Your task to perform on an android device: clear all cookies in the chrome app Image 0: 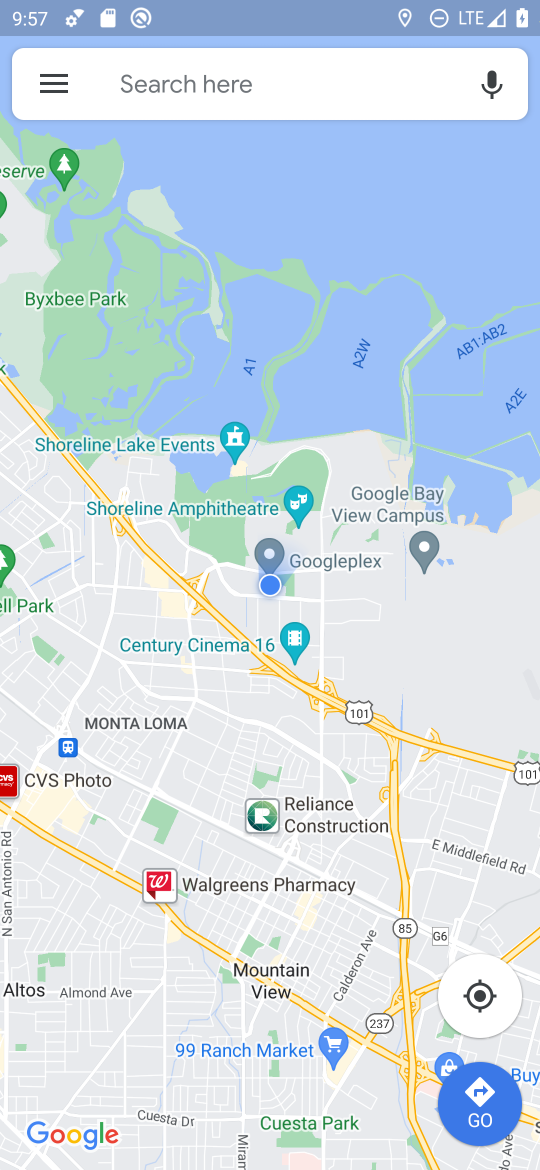
Step 0: press home button
Your task to perform on an android device: clear all cookies in the chrome app Image 1: 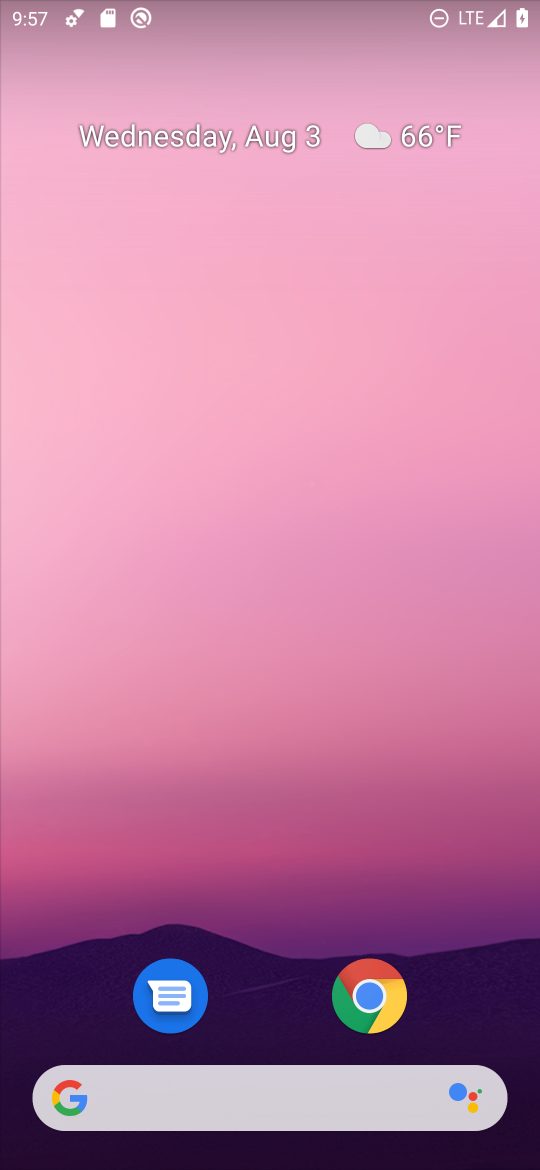
Step 1: click (390, 993)
Your task to perform on an android device: clear all cookies in the chrome app Image 2: 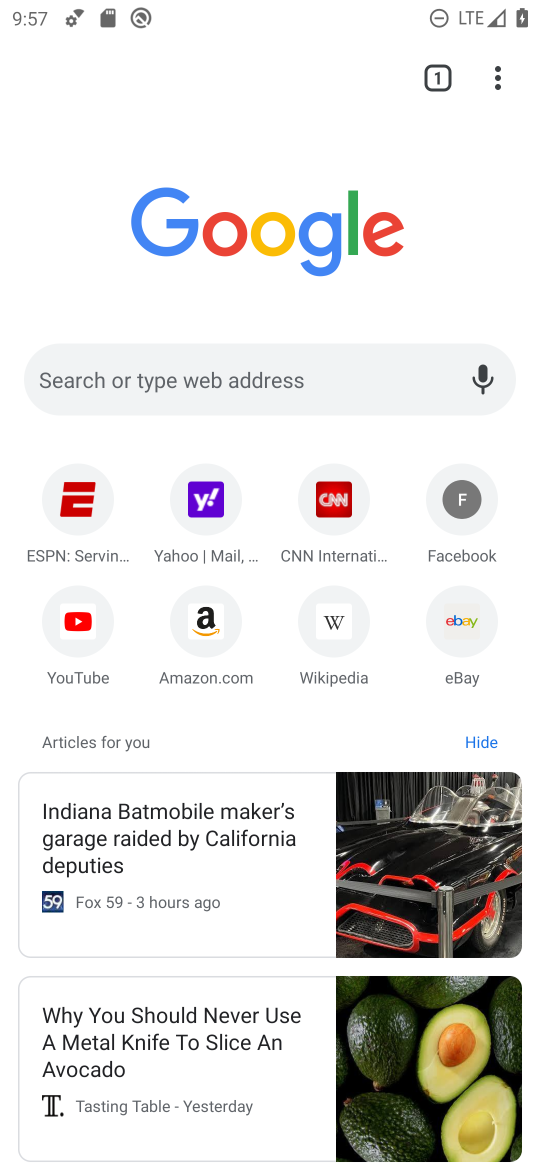
Step 2: click (494, 77)
Your task to perform on an android device: clear all cookies in the chrome app Image 3: 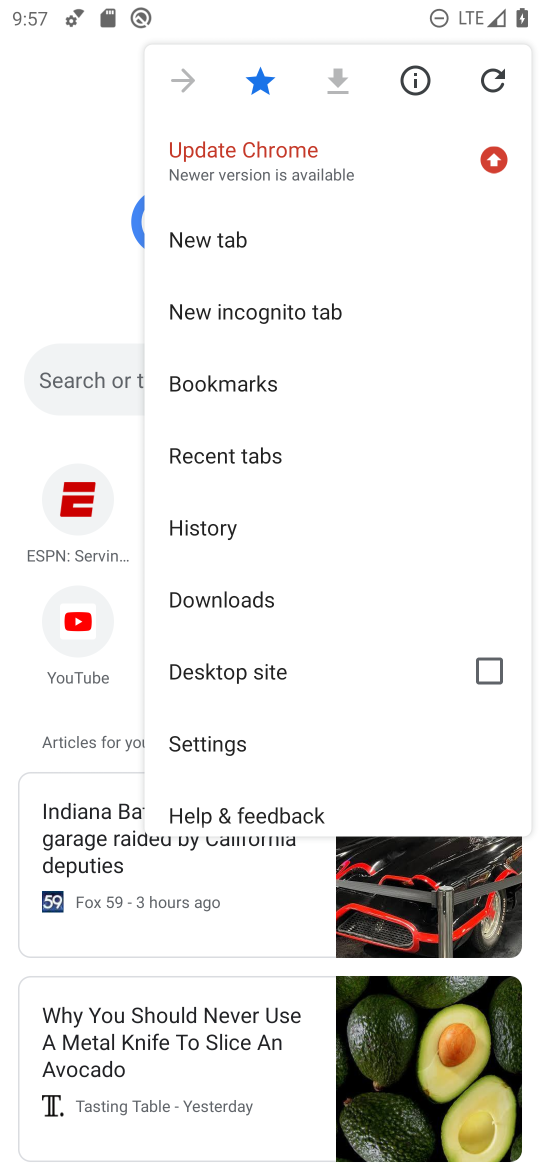
Step 3: click (222, 519)
Your task to perform on an android device: clear all cookies in the chrome app Image 4: 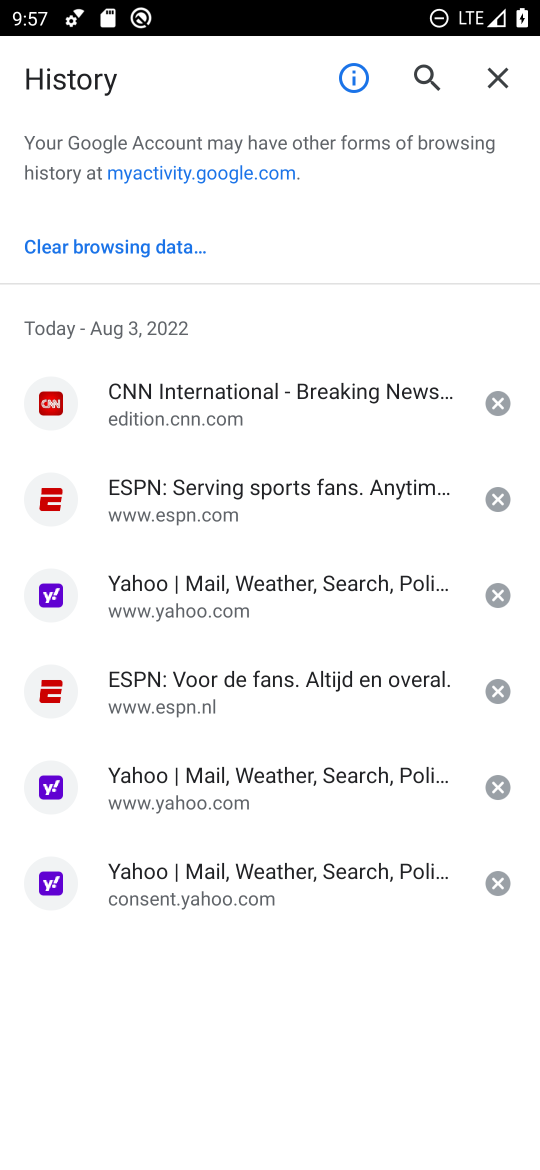
Step 4: click (124, 241)
Your task to perform on an android device: clear all cookies in the chrome app Image 5: 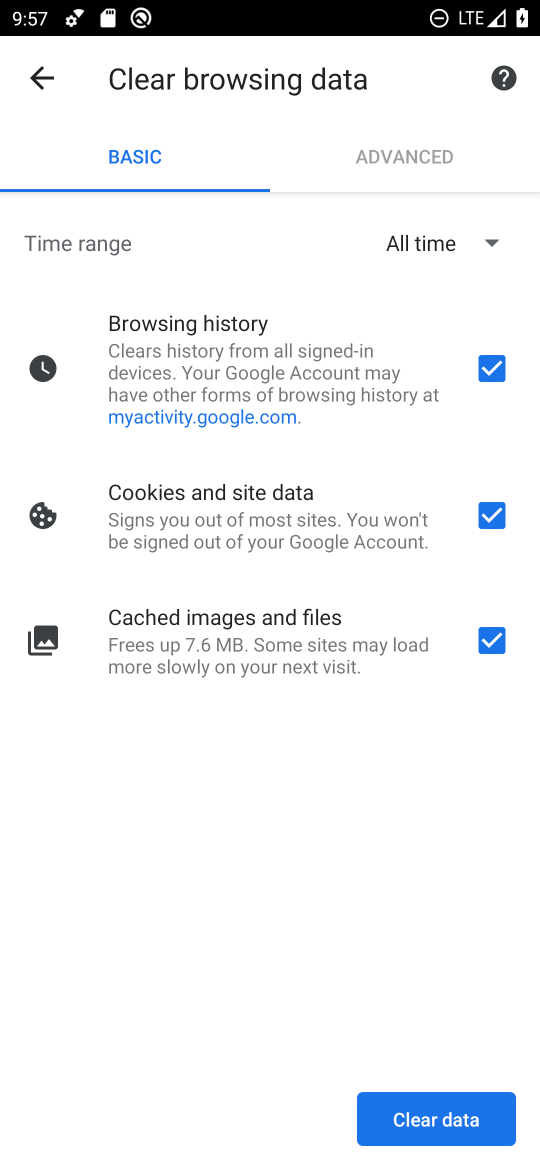
Step 5: click (491, 367)
Your task to perform on an android device: clear all cookies in the chrome app Image 6: 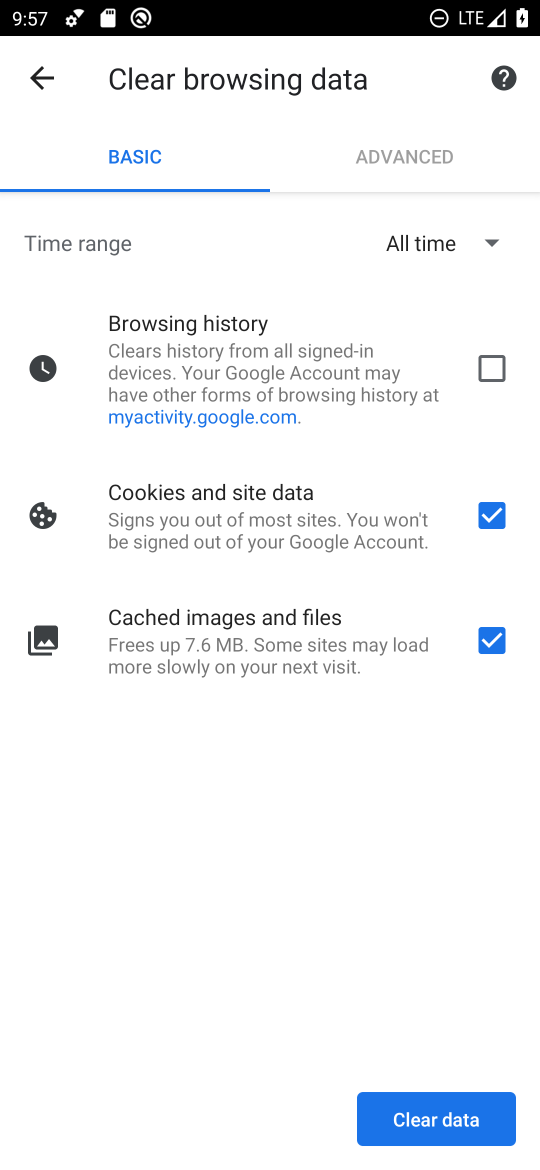
Step 6: click (488, 638)
Your task to perform on an android device: clear all cookies in the chrome app Image 7: 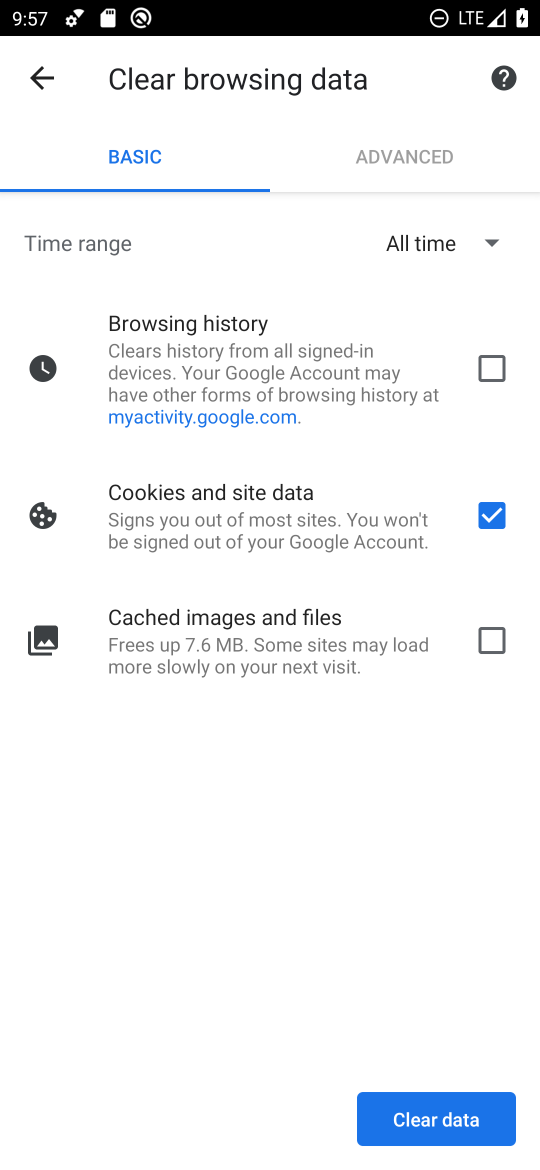
Step 7: click (450, 1110)
Your task to perform on an android device: clear all cookies in the chrome app Image 8: 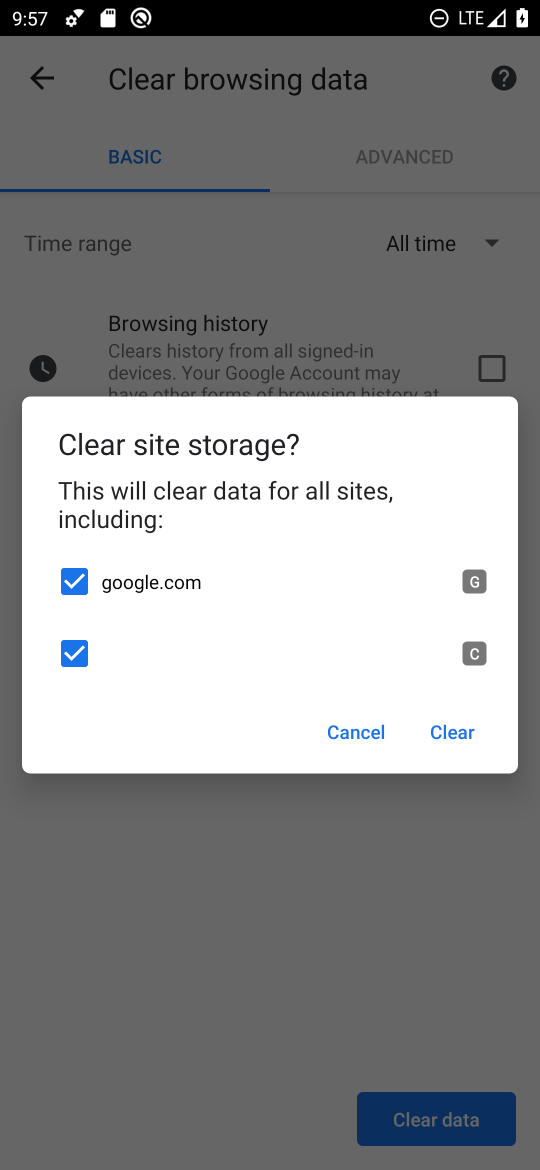
Step 8: click (465, 724)
Your task to perform on an android device: clear all cookies in the chrome app Image 9: 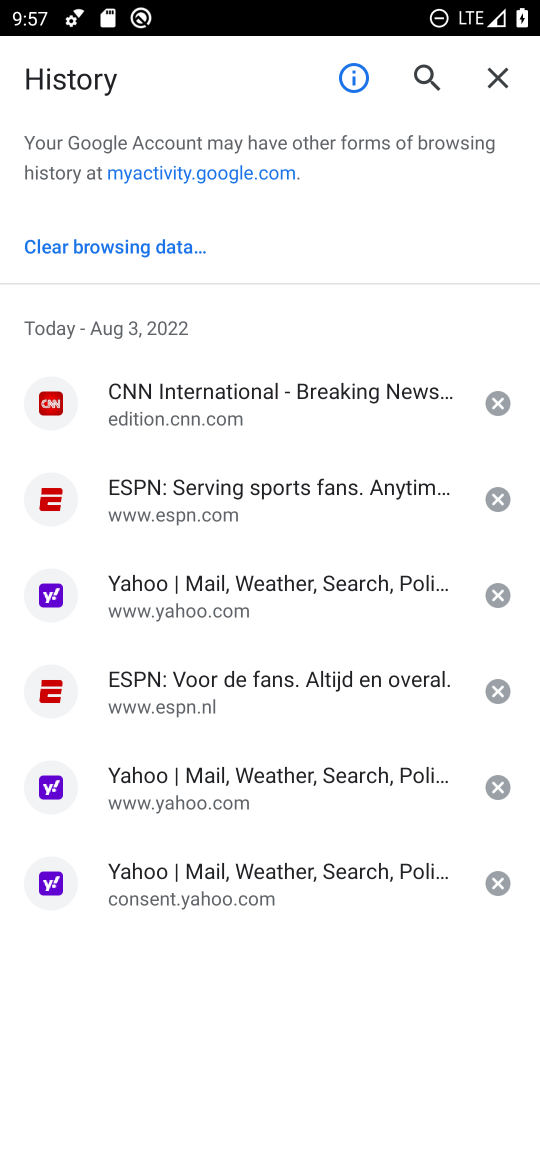
Step 9: task complete